Your task to perform on an android device: toggle priority inbox in the gmail app Image 0: 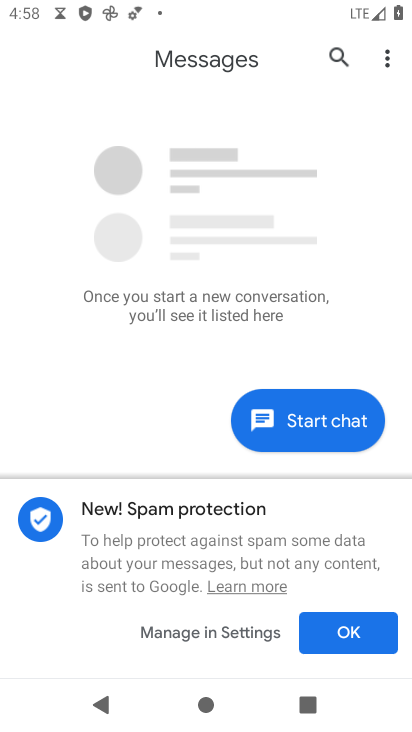
Step 0: press back button
Your task to perform on an android device: toggle priority inbox in the gmail app Image 1: 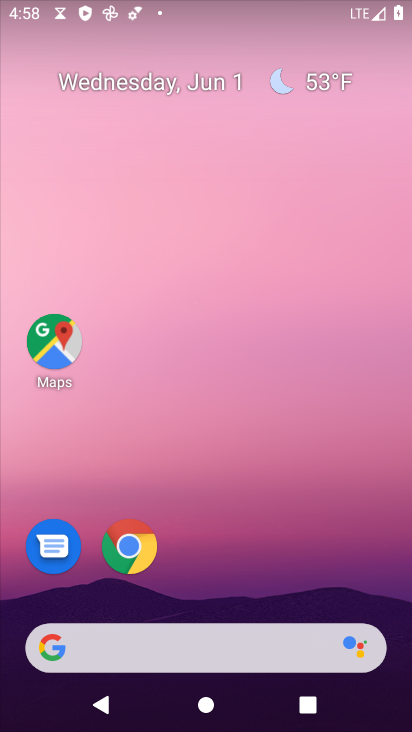
Step 1: drag from (249, 512) to (249, 54)
Your task to perform on an android device: toggle priority inbox in the gmail app Image 2: 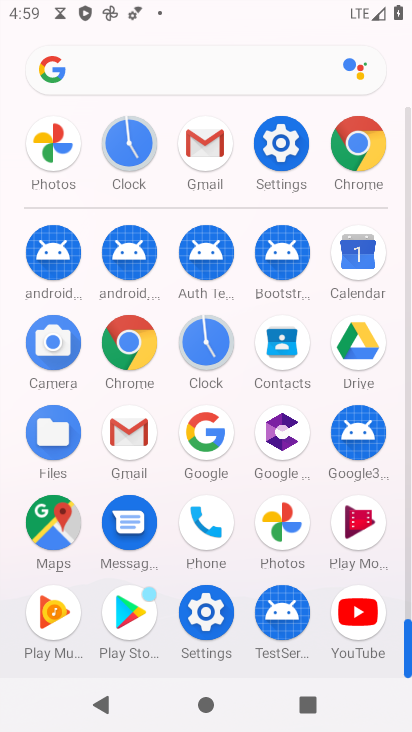
Step 2: drag from (24, 600) to (21, 302)
Your task to perform on an android device: toggle priority inbox in the gmail app Image 3: 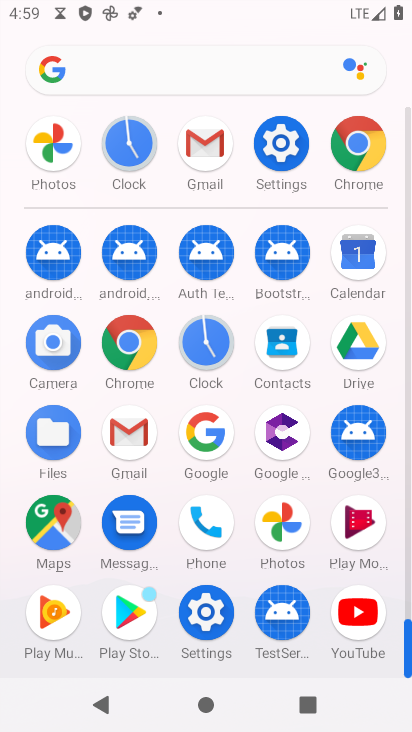
Step 3: drag from (20, 536) to (14, 265)
Your task to perform on an android device: toggle priority inbox in the gmail app Image 4: 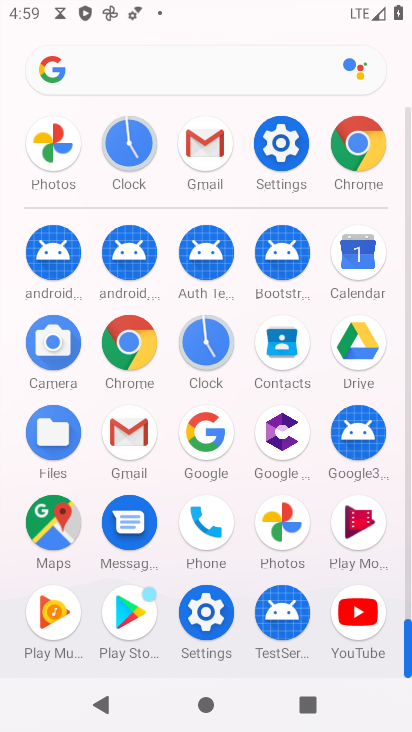
Step 4: click (128, 428)
Your task to perform on an android device: toggle priority inbox in the gmail app Image 5: 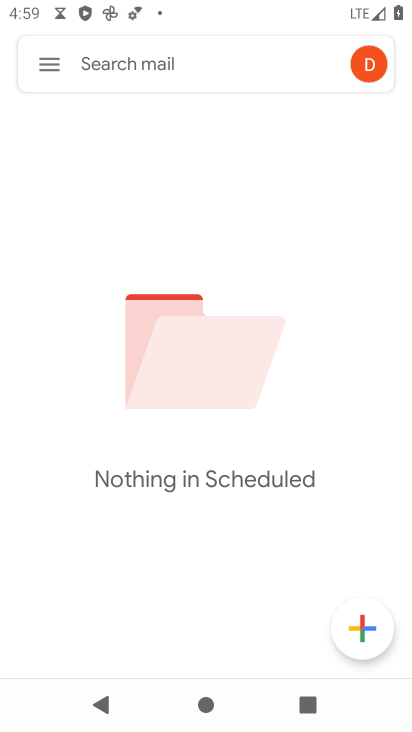
Step 5: click (50, 59)
Your task to perform on an android device: toggle priority inbox in the gmail app Image 6: 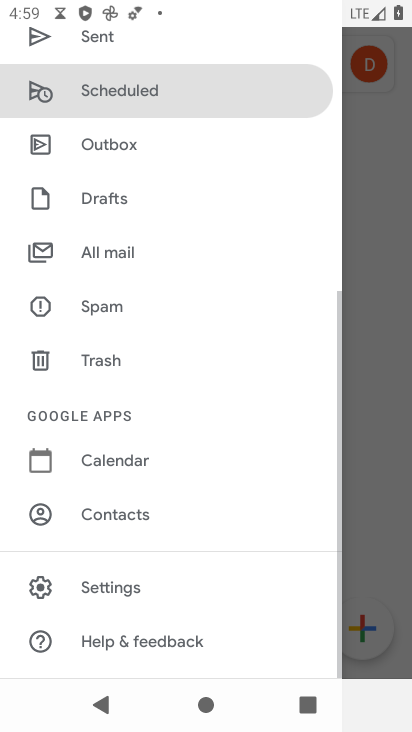
Step 6: drag from (257, 563) to (238, 157)
Your task to perform on an android device: toggle priority inbox in the gmail app Image 7: 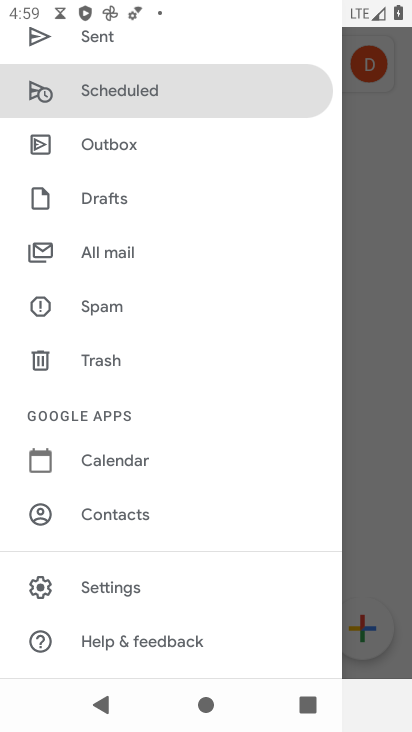
Step 7: click (124, 585)
Your task to perform on an android device: toggle priority inbox in the gmail app Image 8: 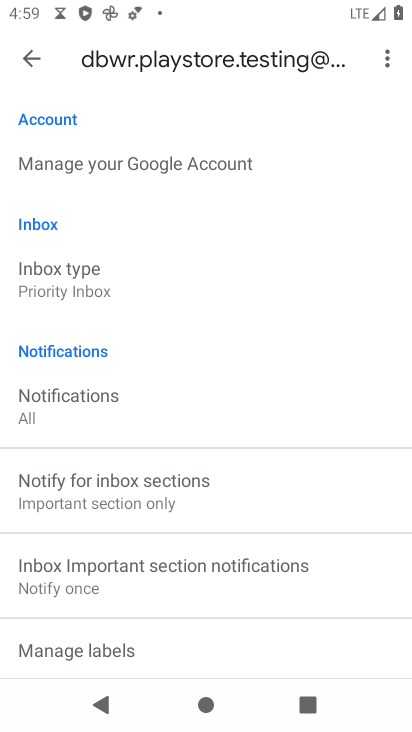
Step 8: click (81, 272)
Your task to perform on an android device: toggle priority inbox in the gmail app Image 9: 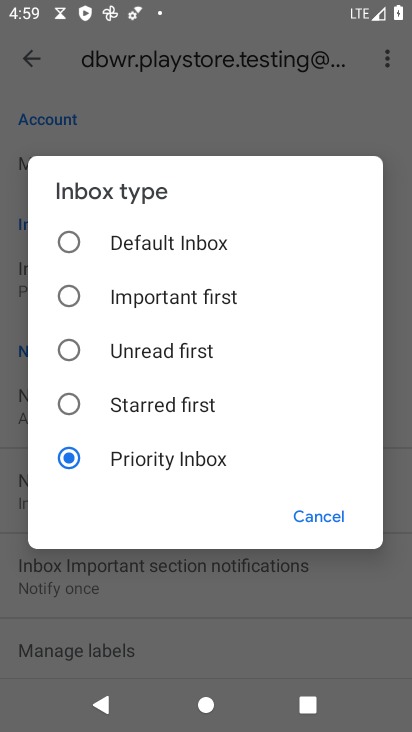
Step 9: click (175, 449)
Your task to perform on an android device: toggle priority inbox in the gmail app Image 10: 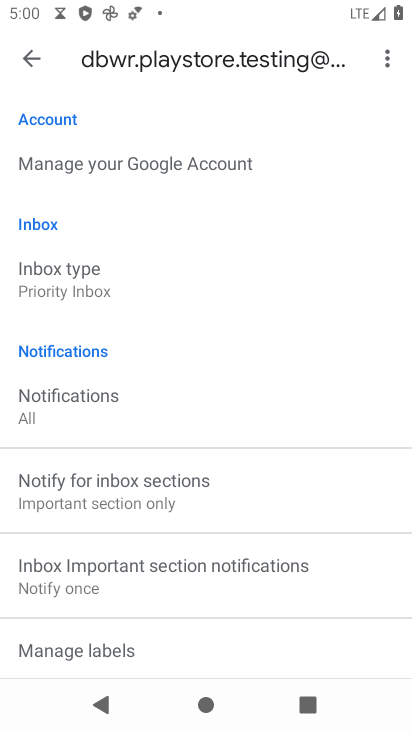
Step 10: click (132, 271)
Your task to perform on an android device: toggle priority inbox in the gmail app Image 11: 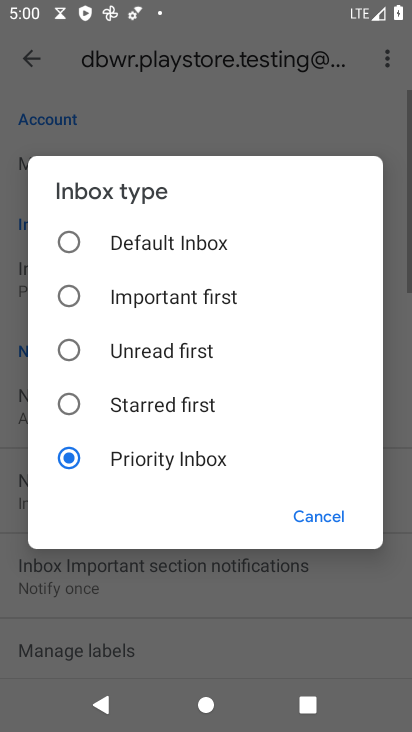
Step 11: click (157, 240)
Your task to perform on an android device: toggle priority inbox in the gmail app Image 12: 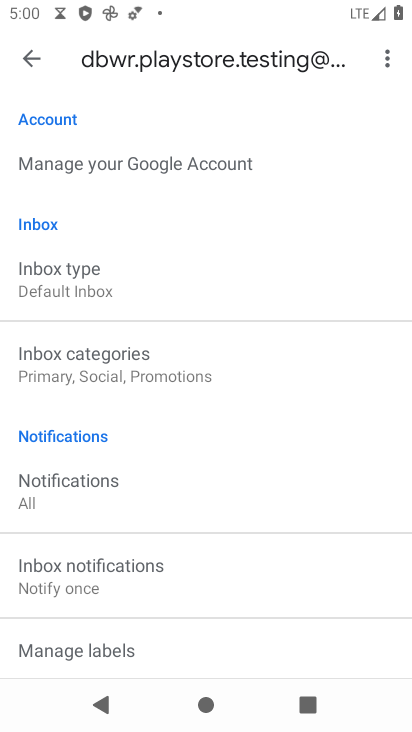
Step 12: task complete